Your task to perform on an android device: add a contact in the contacts app Image 0: 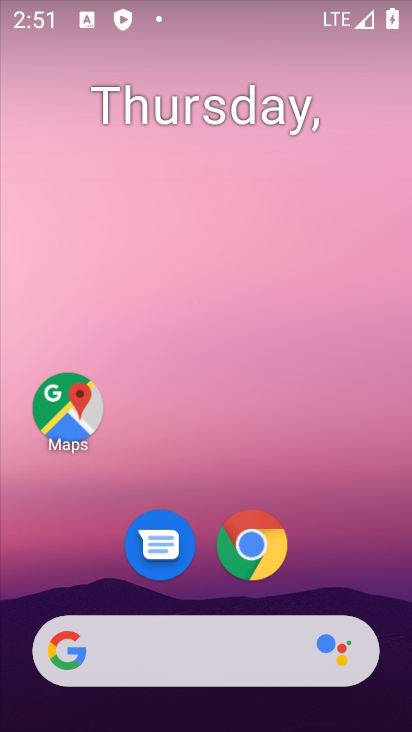
Step 0: drag from (175, 591) to (274, 84)
Your task to perform on an android device: add a contact in the contacts app Image 1: 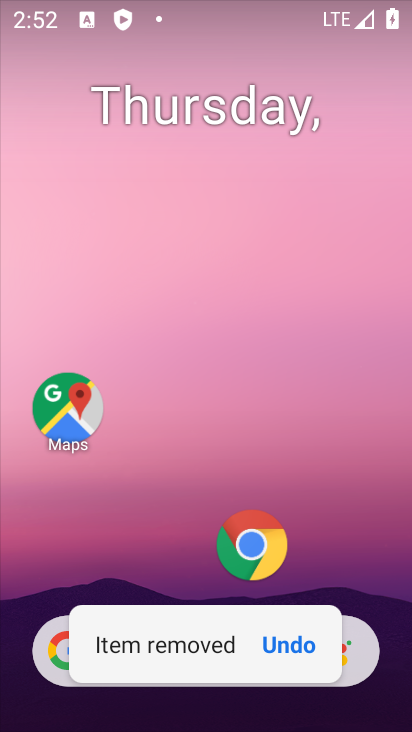
Step 1: drag from (314, 500) to (63, 1)
Your task to perform on an android device: add a contact in the contacts app Image 2: 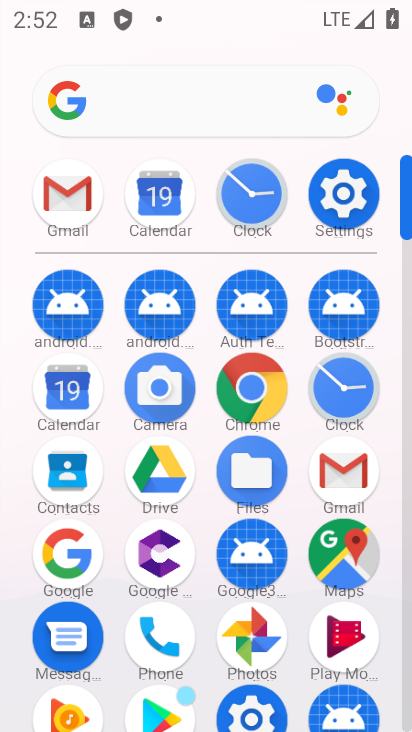
Step 2: click (69, 485)
Your task to perform on an android device: add a contact in the contacts app Image 3: 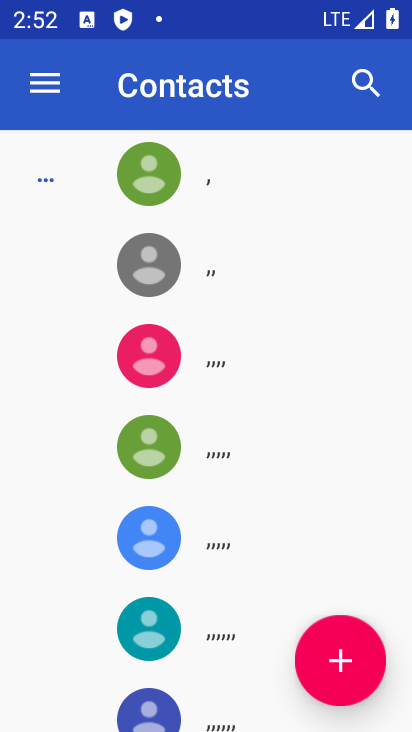
Step 3: click (333, 677)
Your task to perform on an android device: add a contact in the contacts app Image 4: 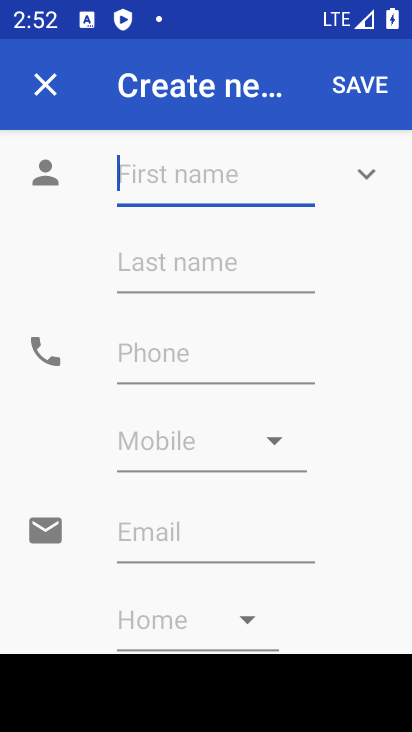
Step 4: type "jkjkkjjkj"
Your task to perform on an android device: add a contact in the contacts app Image 5: 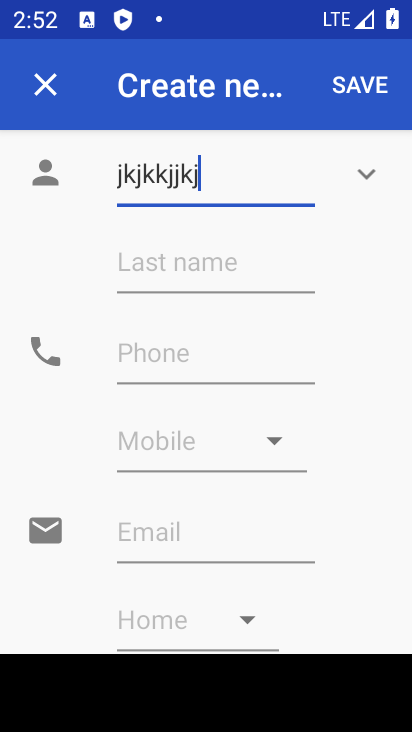
Step 5: click (208, 366)
Your task to perform on an android device: add a contact in the contacts app Image 6: 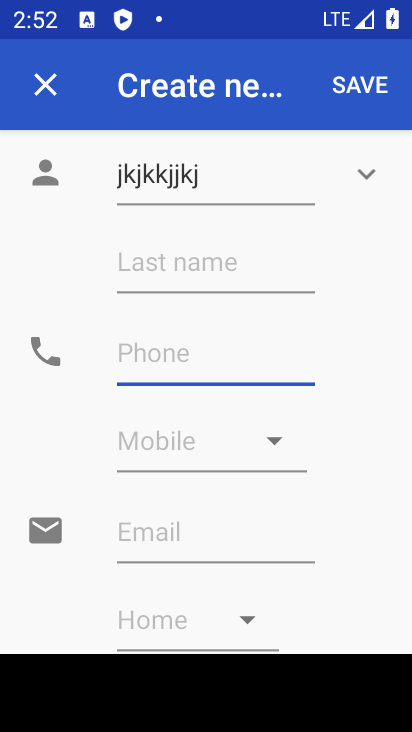
Step 6: type "9897678976"
Your task to perform on an android device: add a contact in the contacts app Image 7: 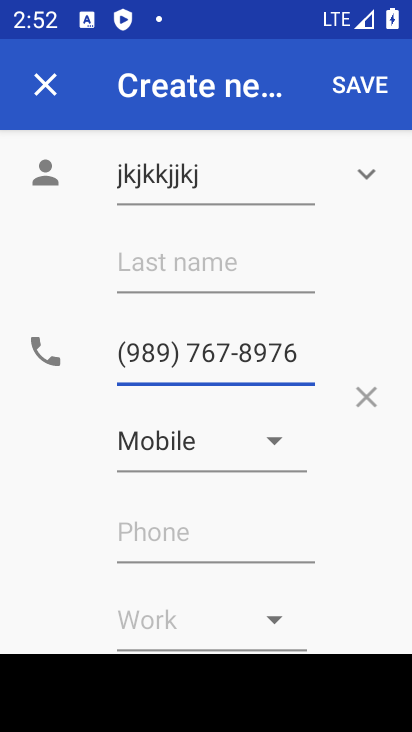
Step 7: click (376, 74)
Your task to perform on an android device: add a contact in the contacts app Image 8: 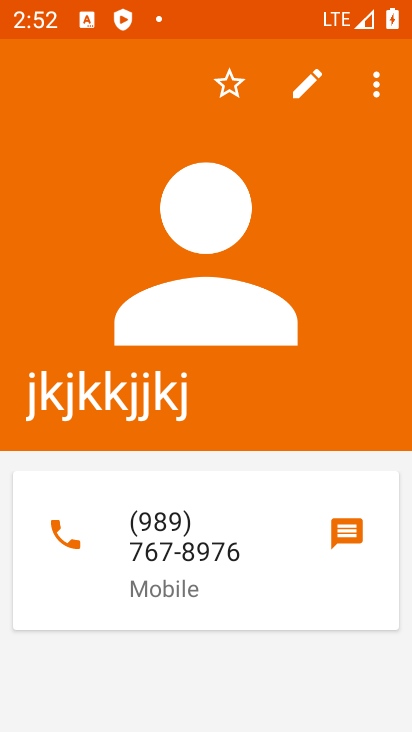
Step 8: task complete